Your task to perform on an android device: Open Yahoo.com Image 0: 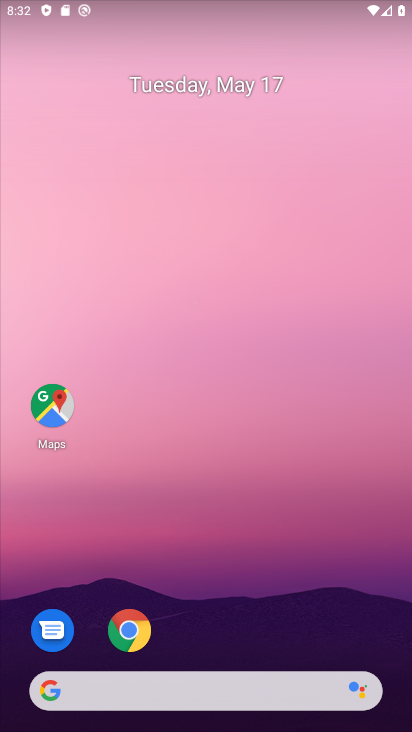
Step 0: drag from (230, 653) to (318, 366)
Your task to perform on an android device: Open Yahoo.com Image 1: 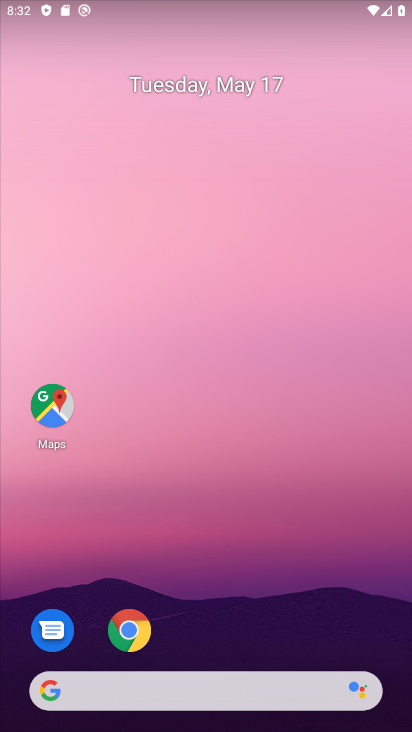
Step 1: click (121, 631)
Your task to perform on an android device: Open Yahoo.com Image 2: 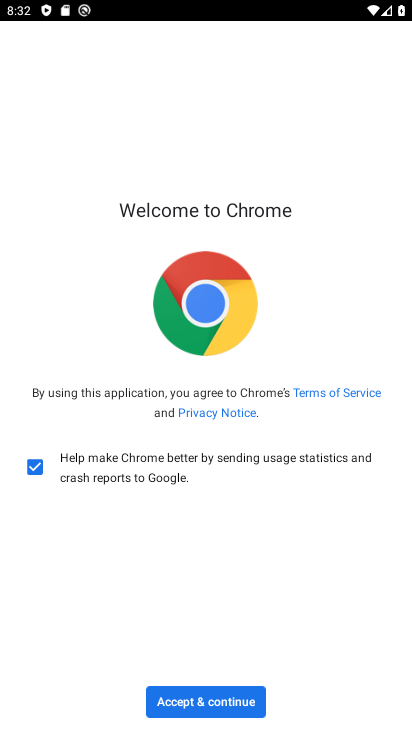
Step 2: click (225, 688)
Your task to perform on an android device: Open Yahoo.com Image 3: 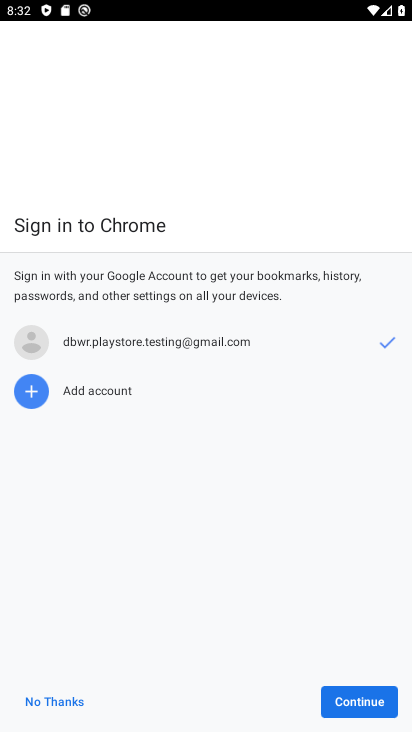
Step 3: click (356, 711)
Your task to perform on an android device: Open Yahoo.com Image 4: 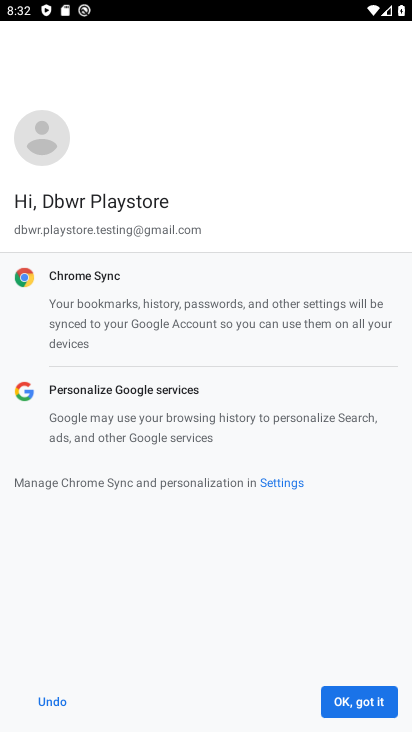
Step 4: click (359, 710)
Your task to perform on an android device: Open Yahoo.com Image 5: 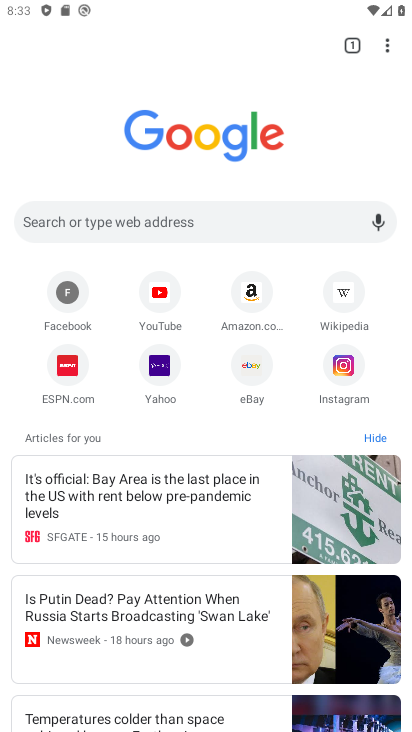
Step 5: click (158, 366)
Your task to perform on an android device: Open Yahoo.com Image 6: 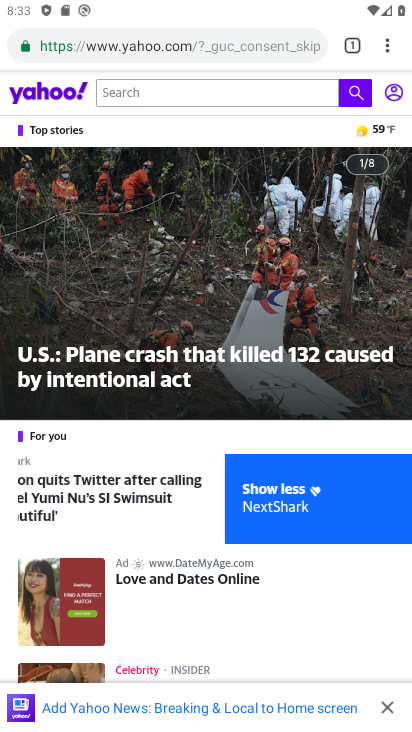
Step 6: task complete